Your task to perform on an android device: turn off data saver in the chrome app Image 0: 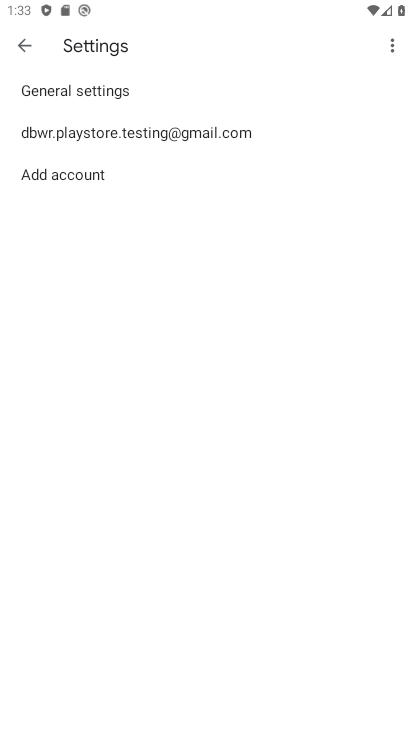
Step 0: press home button
Your task to perform on an android device: turn off data saver in the chrome app Image 1: 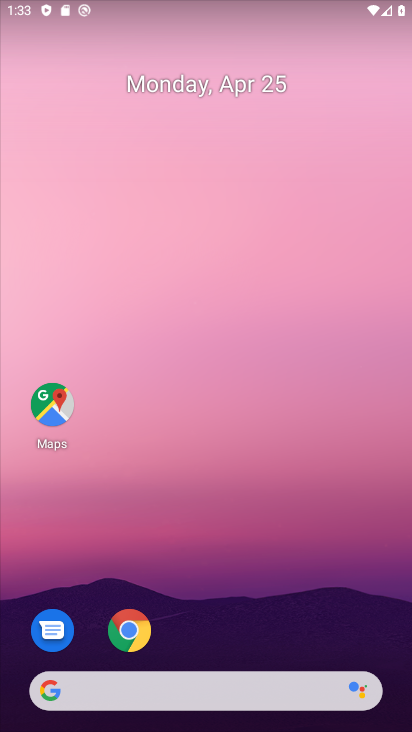
Step 1: drag from (212, 623) to (318, 11)
Your task to perform on an android device: turn off data saver in the chrome app Image 2: 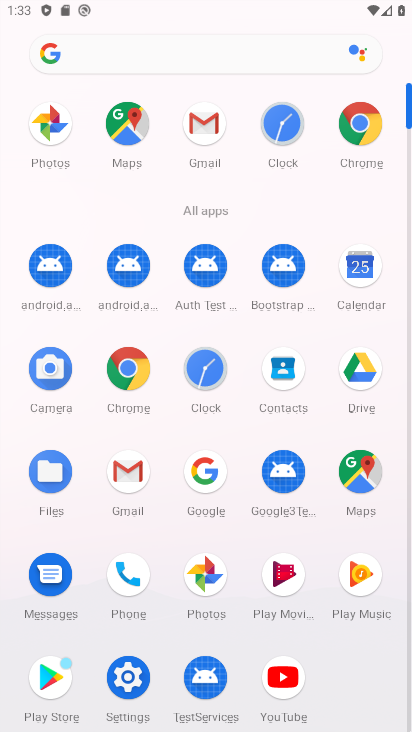
Step 2: click (355, 140)
Your task to perform on an android device: turn off data saver in the chrome app Image 3: 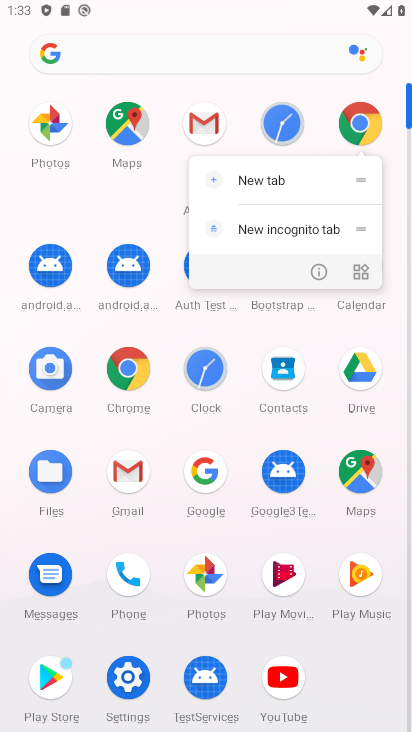
Step 3: click (363, 118)
Your task to perform on an android device: turn off data saver in the chrome app Image 4: 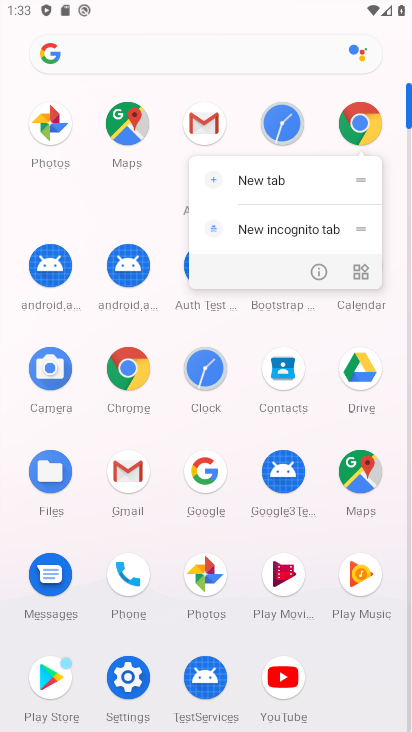
Step 4: click (369, 104)
Your task to perform on an android device: turn off data saver in the chrome app Image 5: 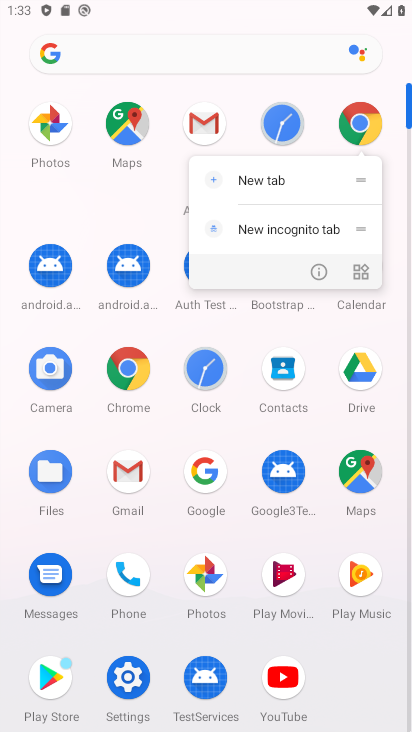
Step 5: click (364, 114)
Your task to perform on an android device: turn off data saver in the chrome app Image 6: 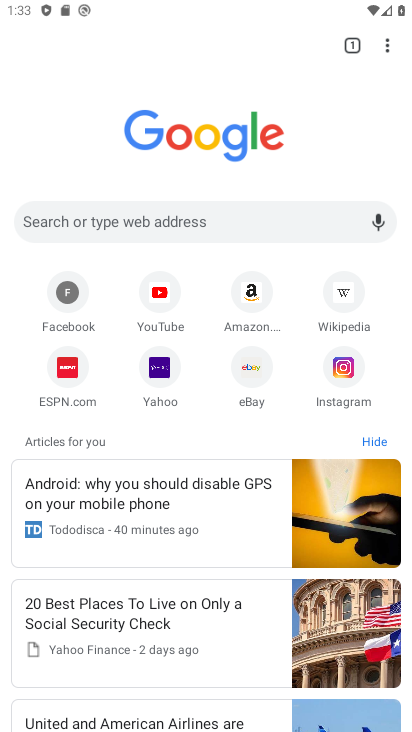
Step 6: drag from (385, 45) to (219, 385)
Your task to perform on an android device: turn off data saver in the chrome app Image 7: 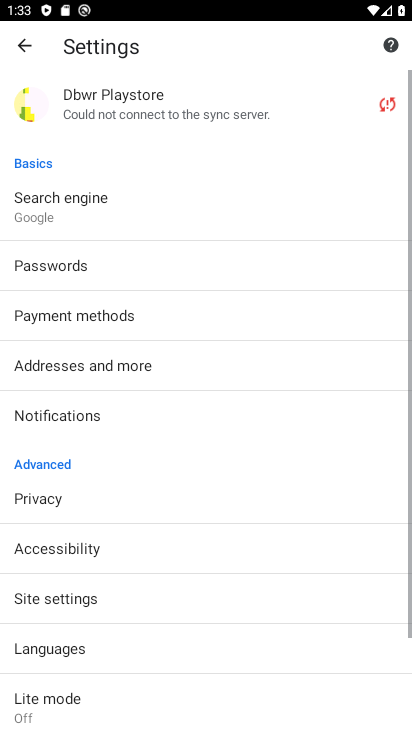
Step 7: click (68, 709)
Your task to perform on an android device: turn off data saver in the chrome app Image 8: 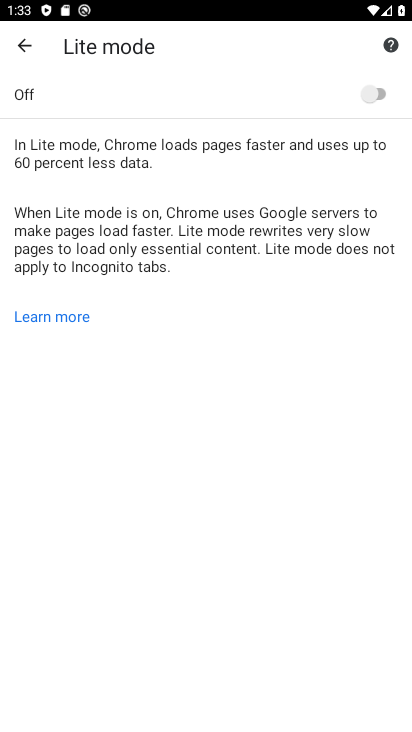
Step 8: task complete